Your task to perform on an android device: Go to Android settings Image 0: 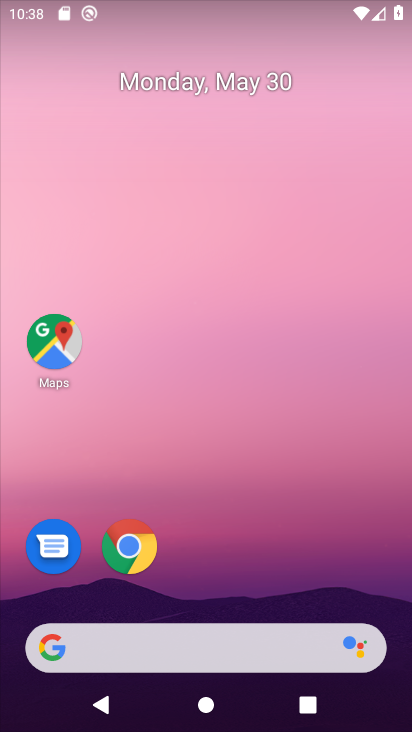
Step 0: drag from (191, 591) to (243, 14)
Your task to perform on an android device: Go to Android settings Image 1: 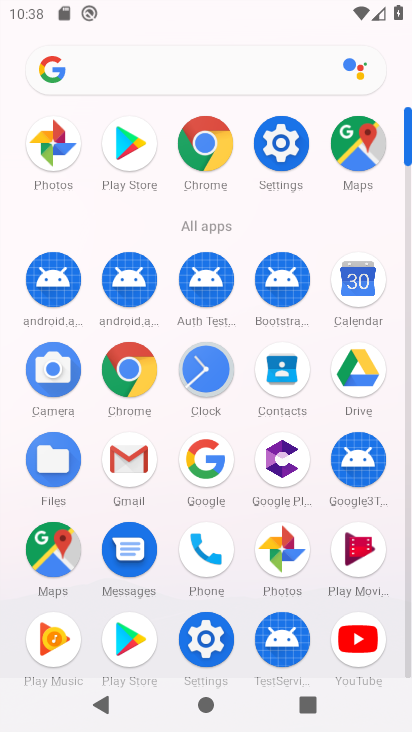
Step 1: click (215, 646)
Your task to perform on an android device: Go to Android settings Image 2: 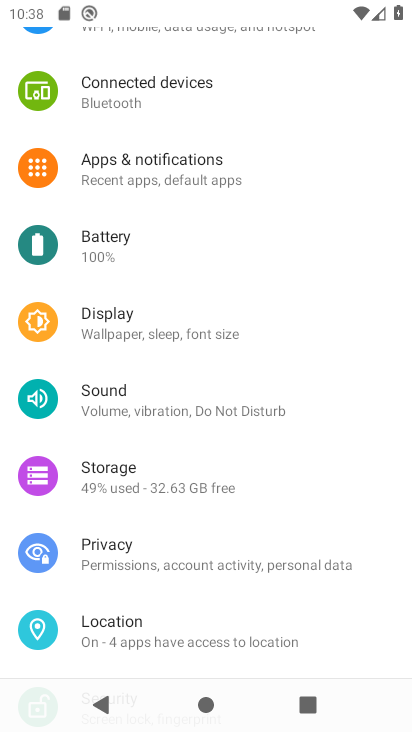
Step 2: task complete